Your task to perform on an android device: Go to privacy settings Image 0: 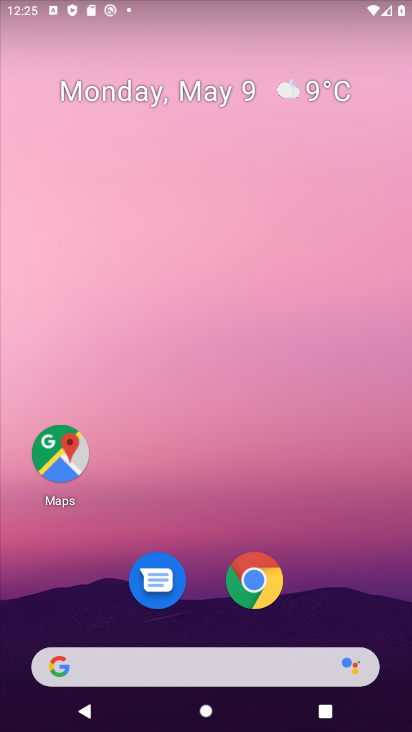
Step 0: drag from (334, 600) to (283, 143)
Your task to perform on an android device: Go to privacy settings Image 1: 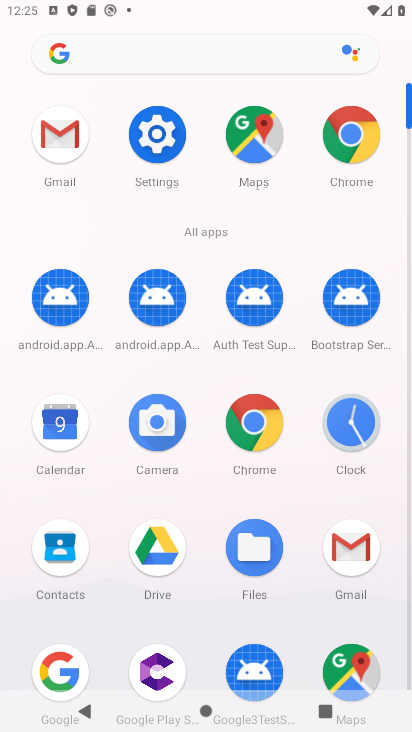
Step 1: click (166, 135)
Your task to perform on an android device: Go to privacy settings Image 2: 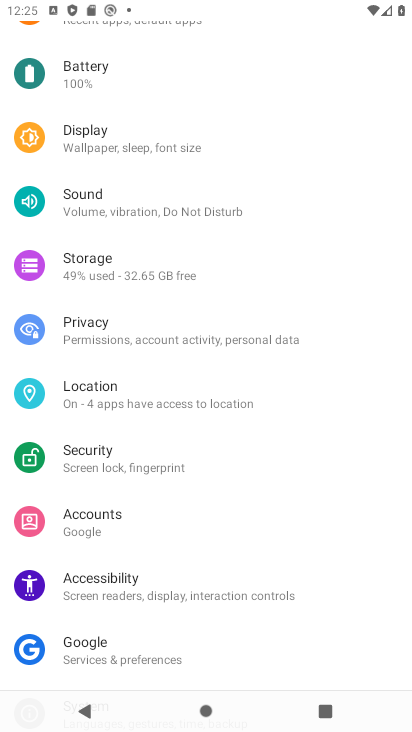
Step 2: click (138, 331)
Your task to perform on an android device: Go to privacy settings Image 3: 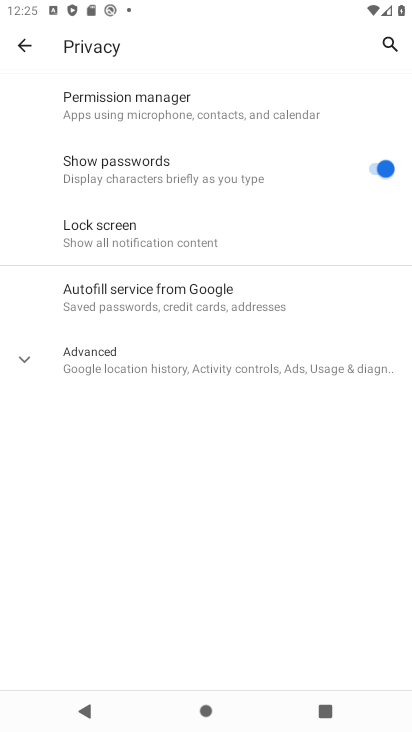
Step 3: task complete